Your task to perform on an android device: Open network settings Image 0: 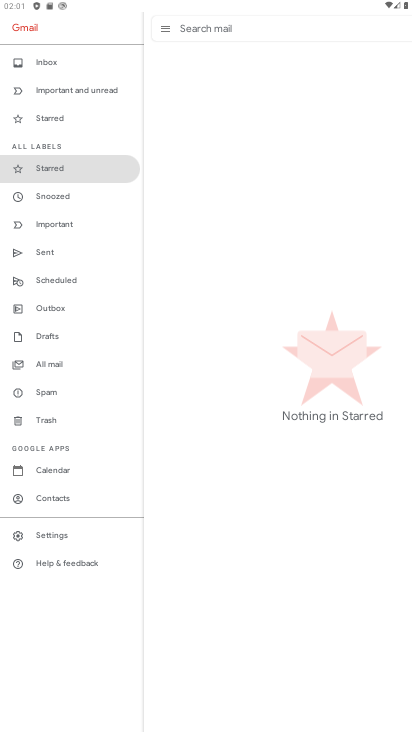
Step 0: press home button
Your task to perform on an android device: Open network settings Image 1: 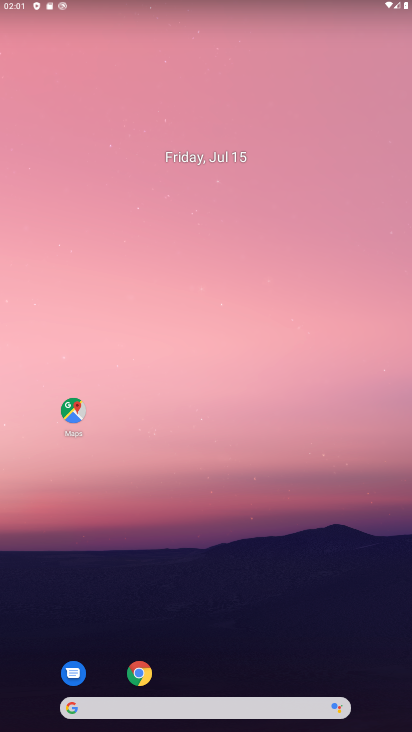
Step 1: drag from (261, 624) to (312, 106)
Your task to perform on an android device: Open network settings Image 2: 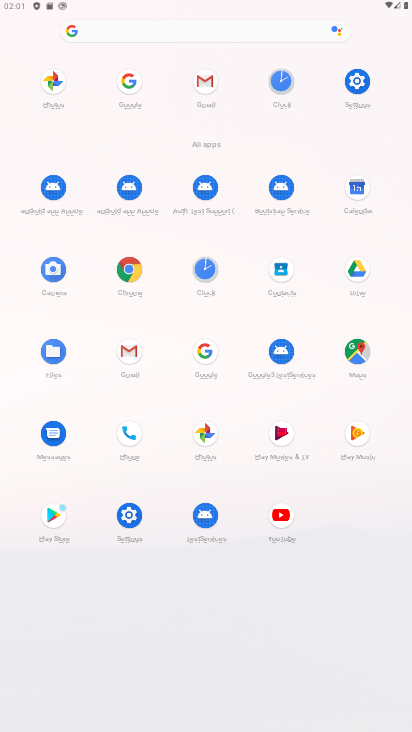
Step 2: click (361, 79)
Your task to perform on an android device: Open network settings Image 3: 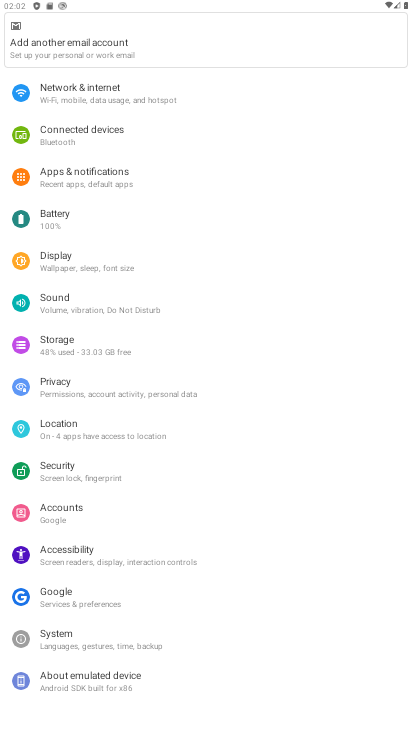
Step 3: click (68, 97)
Your task to perform on an android device: Open network settings Image 4: 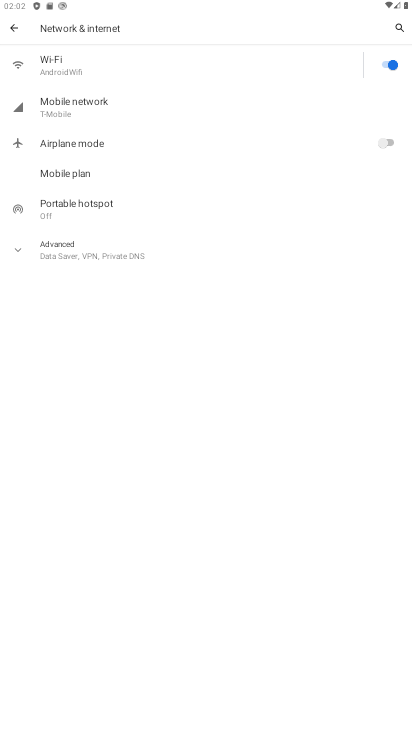
Step 4: task complete